Your task to perform on an android device: move an email to a new category in the gmail app Image 0: 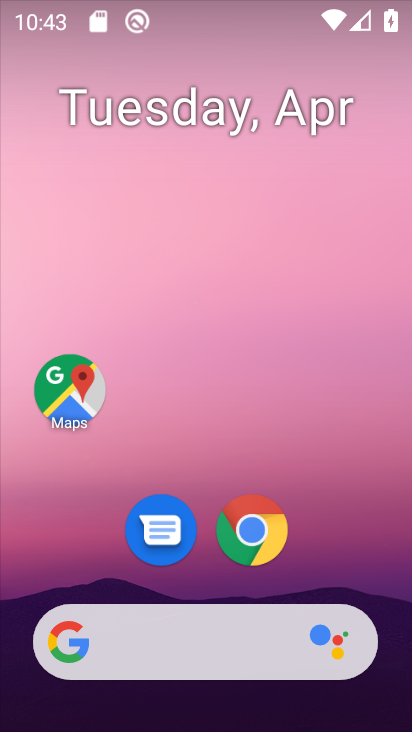
Step 0: click (303, 147)
Your task to perform on an android device: move an email to a new category in the gmail app Image 1: 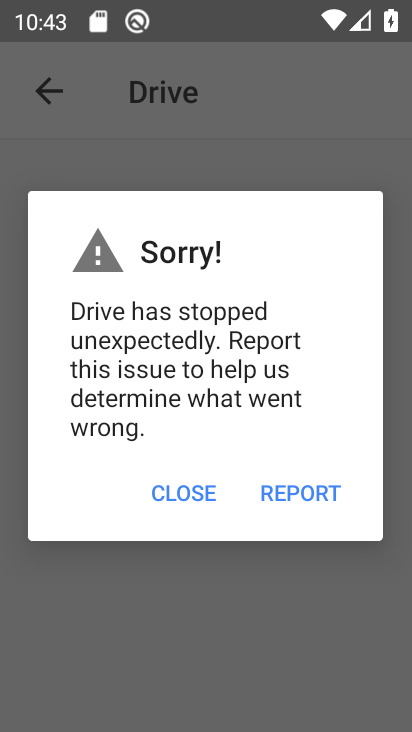
Step 1: press home button
Your task to perform on an android device: move an email to a new category in the gmail app Image 2: 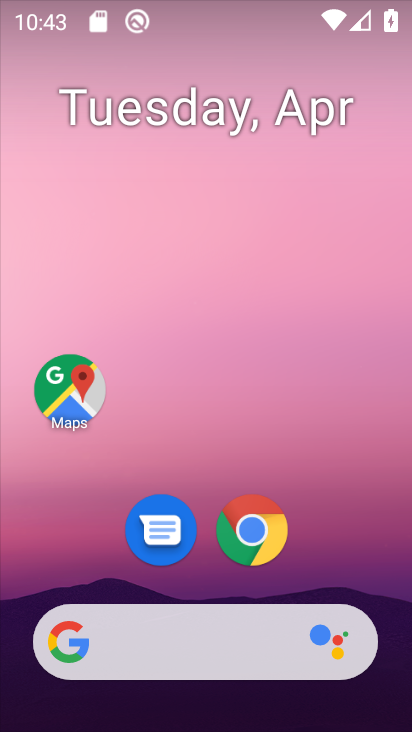
Step 2: drag from (165, 634) to (304, 164)
Your task to perform on an android device: move an email to a new category in the gmail app Image 3: 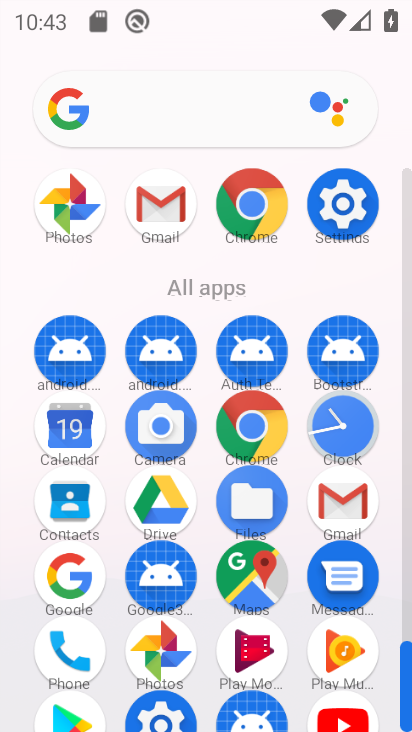
Step 3: click (166, 213)
Your task to perform on an android device: move an email to a new category in the gmail app Image 4: 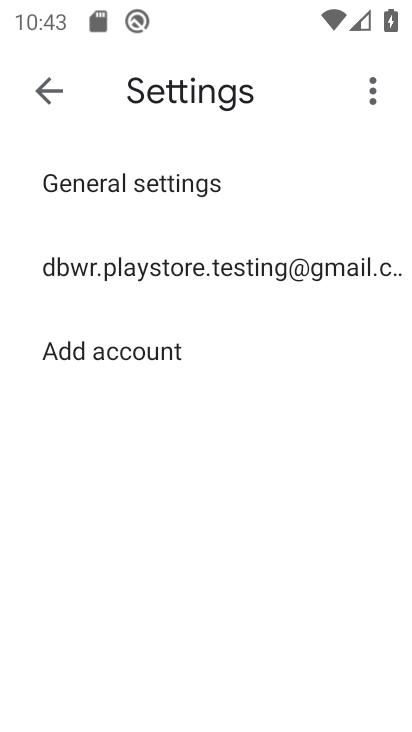
Step 4: click (48, 83)
Your task to perform on an android device: move an email to a new category in the gmail app Image 5: 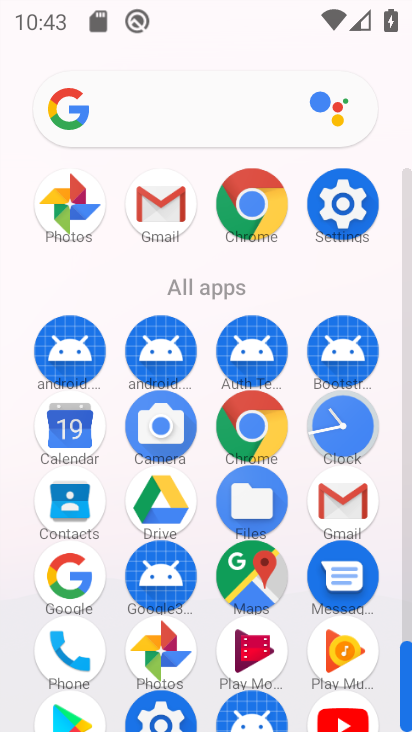
Step 5: click (163, 211)
Your task to perform on an android device: move an email to a new category in the gmail app Image 6: 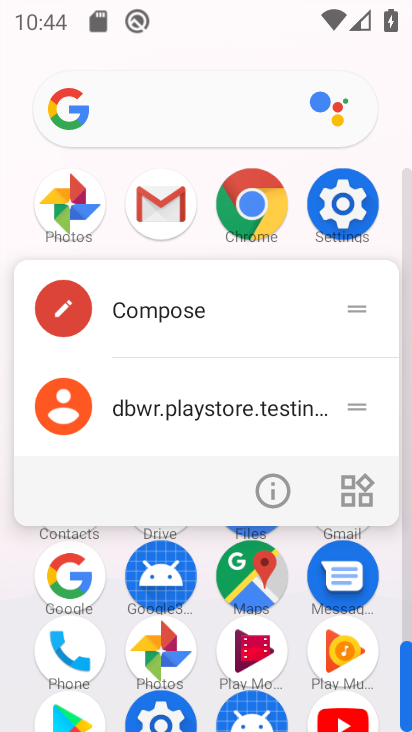
Step 6: click (157, 218)
Your task to perform on an android device: move an email to a new category in the gmail app Image 7: 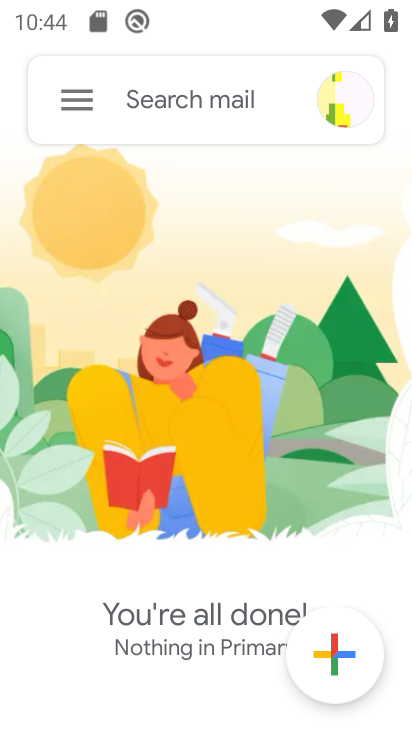
Step 7: task complete